Your task to perform on an android device: Go to Reddit.com Image 0: 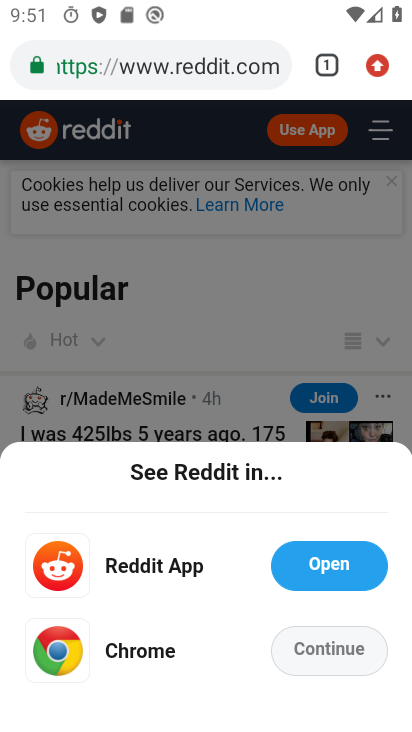
Step 0: task complete